Your task to perform on an android device: open device folders in google photos Image 0: 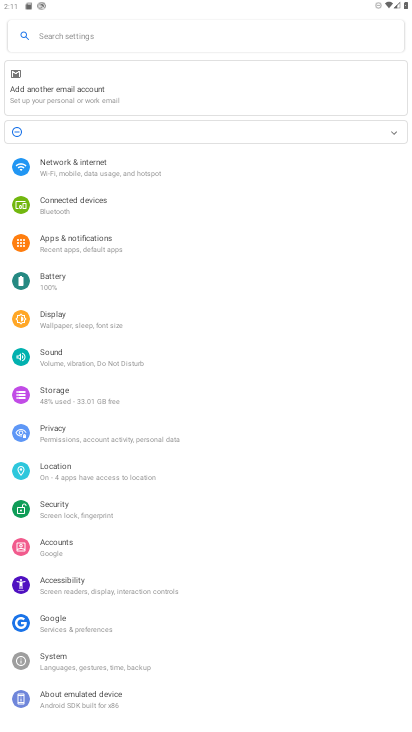
Step 0: press home button
Your task to perform on an android device: open device folders in google photos Image 1: 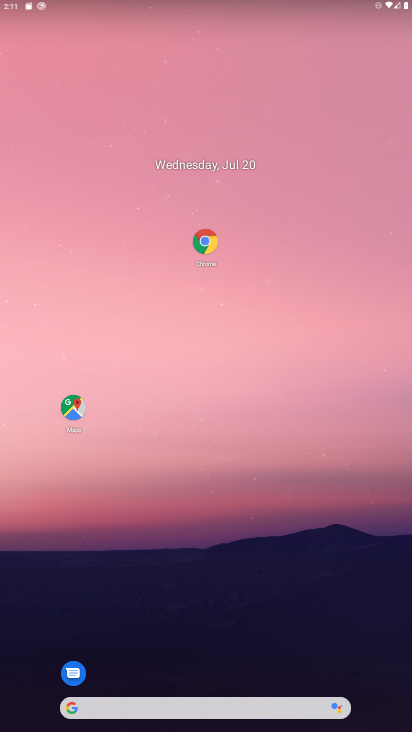
Step 1: drag from (192, 650) to (269, 100)
Your task to perform on an android device: open device folders in google photos Image 2: 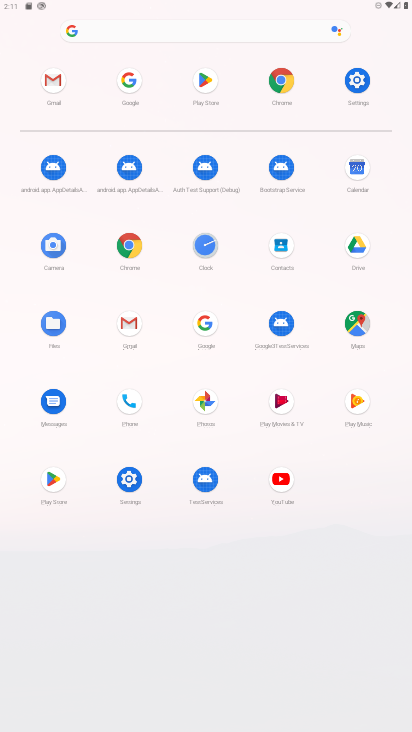
Step 2: click (202, 397)
Your task to perform on an android device: open device folders in google photos Image 3: 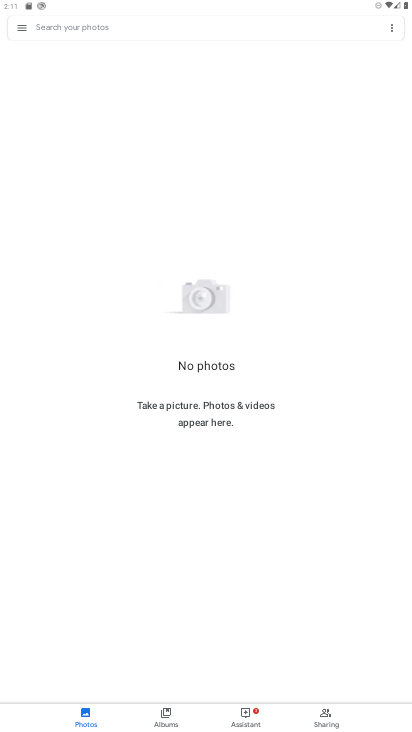
Step 3: click (27, 31)
Your task to perform on an android device: open device folders in google photos Image 4: 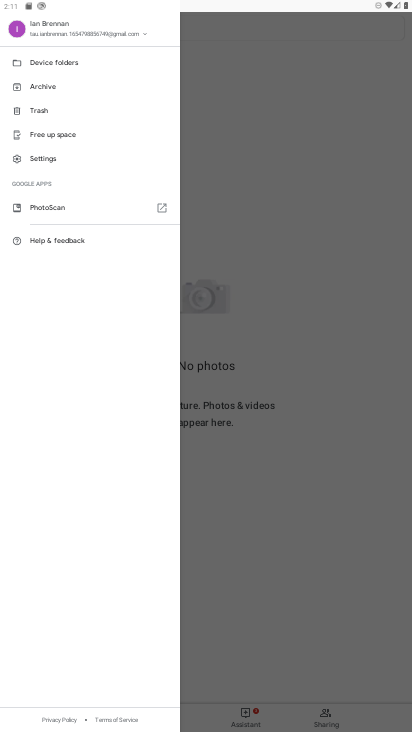
Step 4: click (41, 62)
Your task to perform on an android device: open device folders in google photos Image 5: 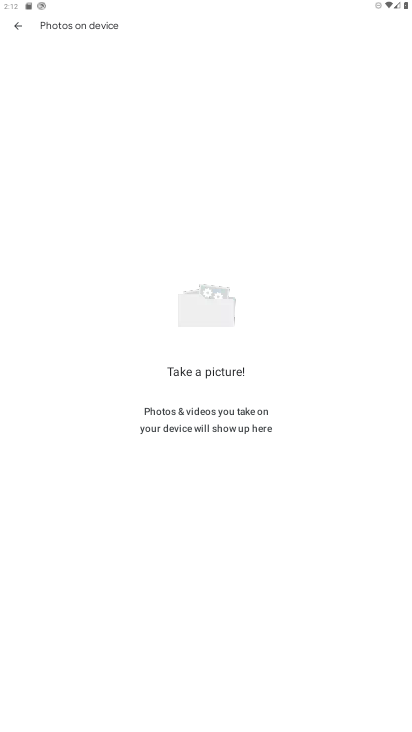
Step 5: task complete